Your task to perform on an android device: Go to Google maps Image 0: 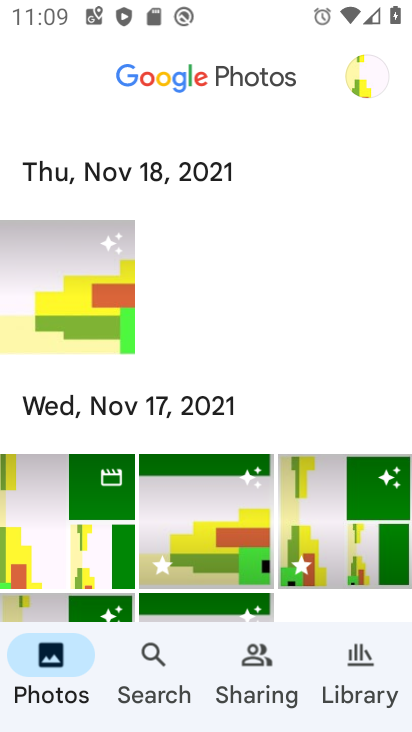
Step 0: press back button
Your task to perform on an android device: Go to Google maps Image 1: 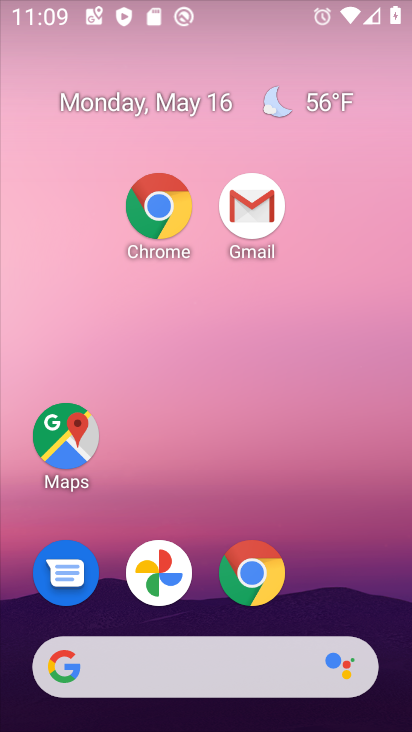
Step 1: drag from (316, 619) to (150, 10)
Your task to perform on an android device: Go to Google maps Image 2: 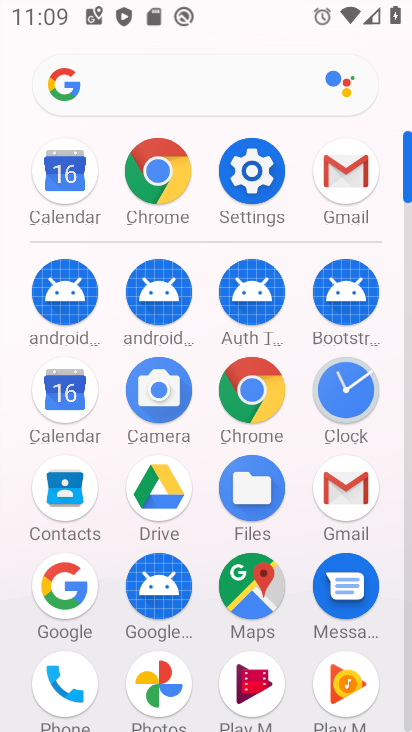
Step 2: click (255, 603)
Your task to perform on an android device: Go to Google maps Image 3: 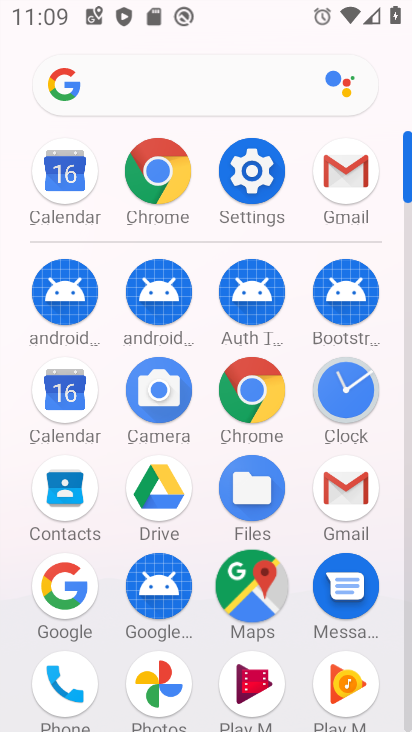
Step 3: click (247, 590)
Your task to perform on an android device: Go to Google maps Image 4: 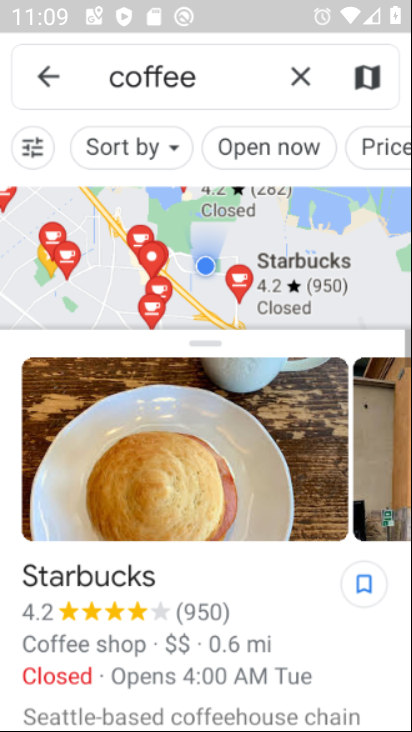
Step 4: click (247, 590)
Your task to perform on an android device: Go to Google maps Image 5: 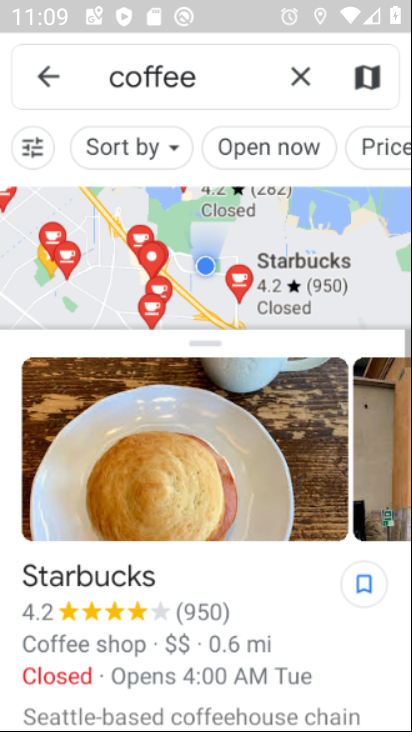
Step 5: task complete